Your task to perform on an android device: add a contact Image 0: 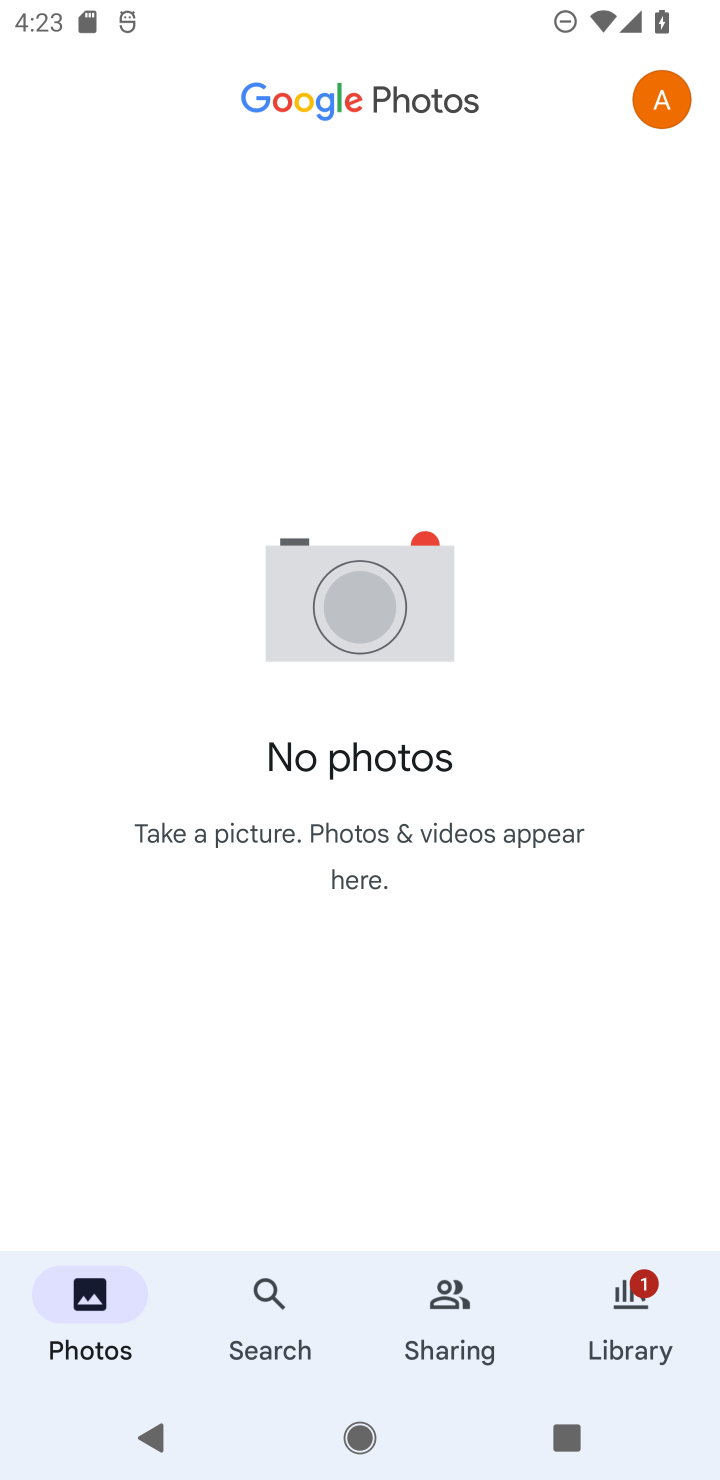
Step 0: press home button
Your task to perform on an android device: add a contact Image 1: 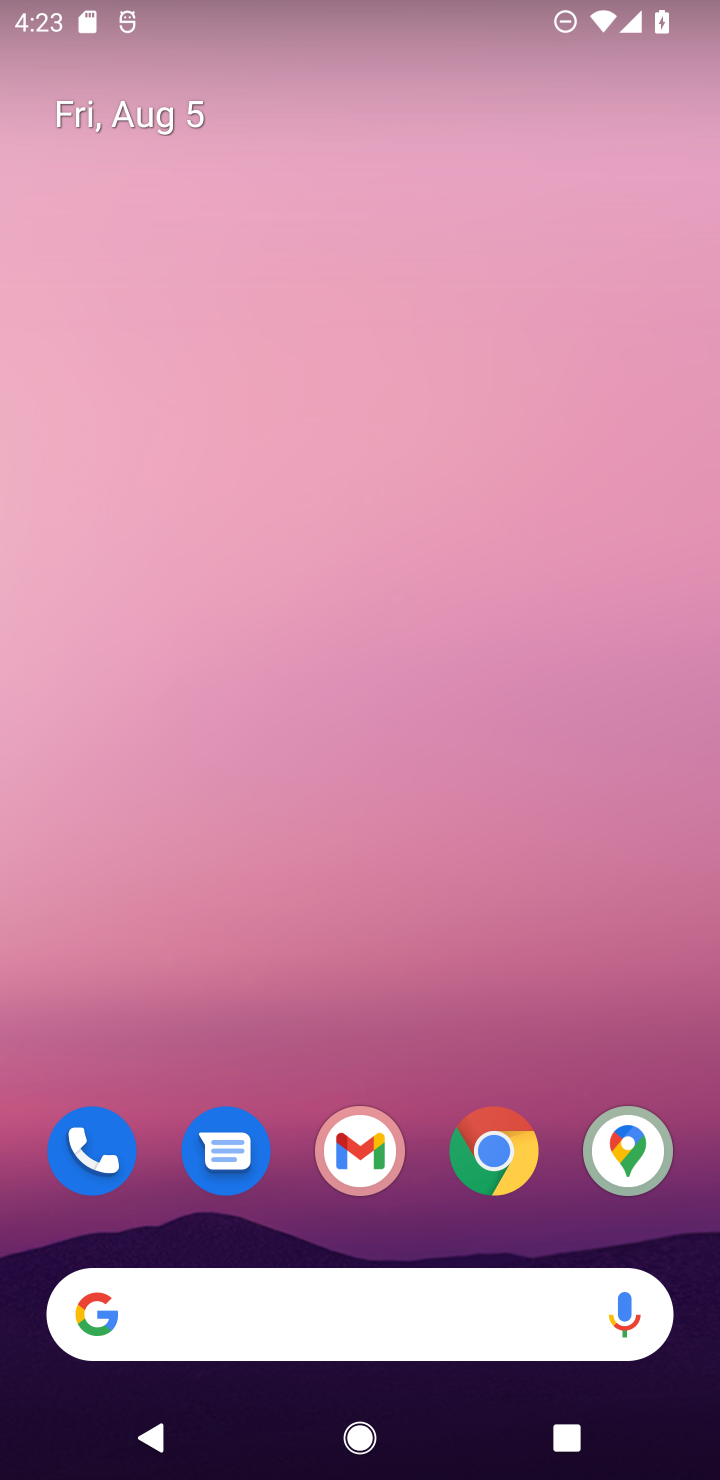
Step 1: drag from (488, 1009) to (459, 225)
Your task to perform on an android device: add a contact Image 2: 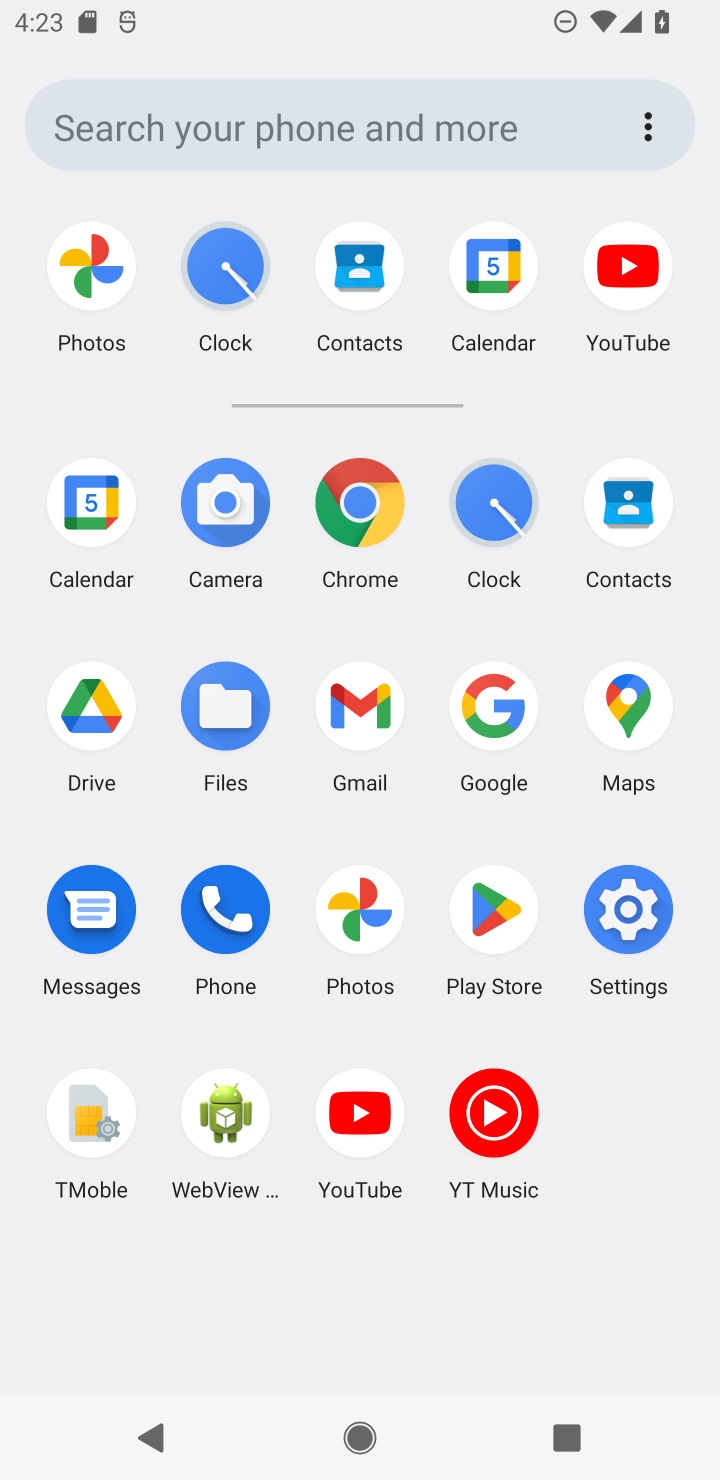
Step 2: click (635, 486)
Your task to perform on an android device: add a contact Image 3: 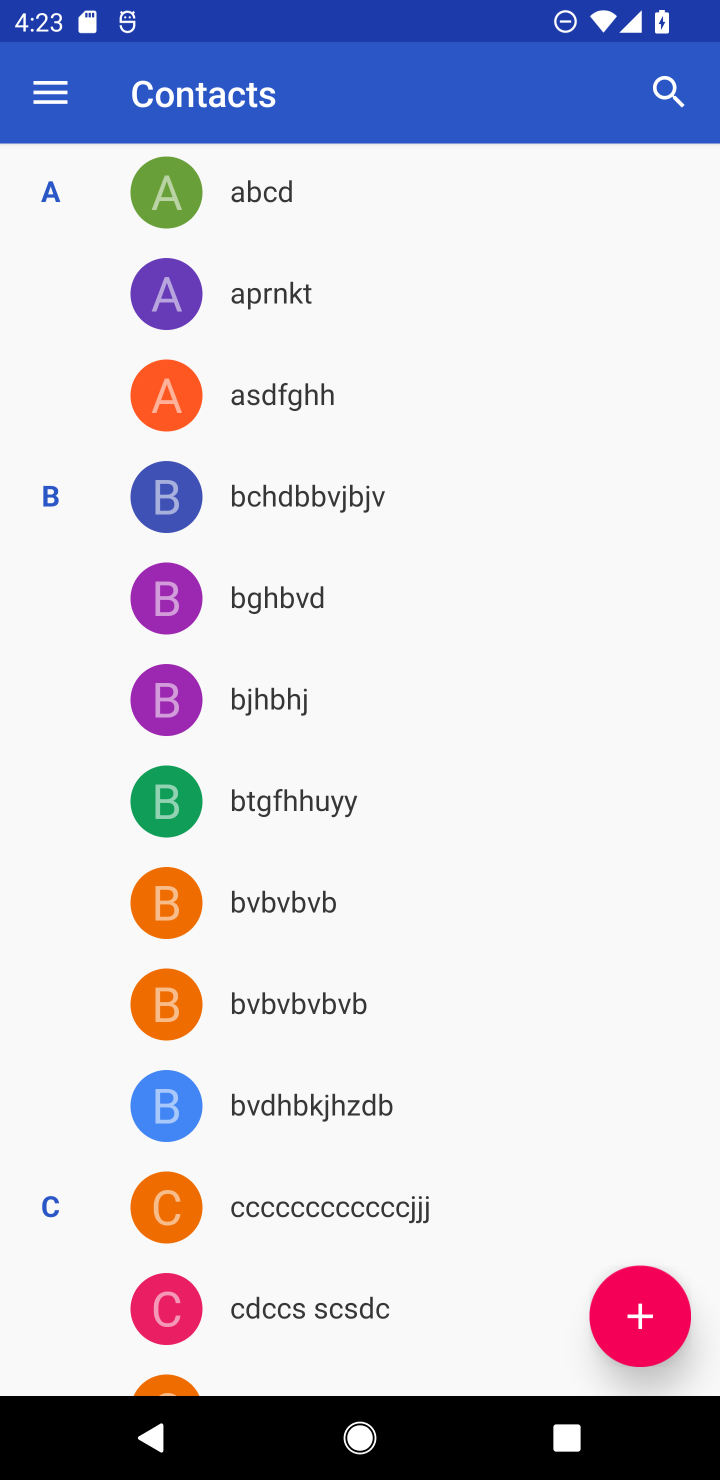
Step 3: click (632, 1310)
Your task to perform on an android device: add a contact Image 4: 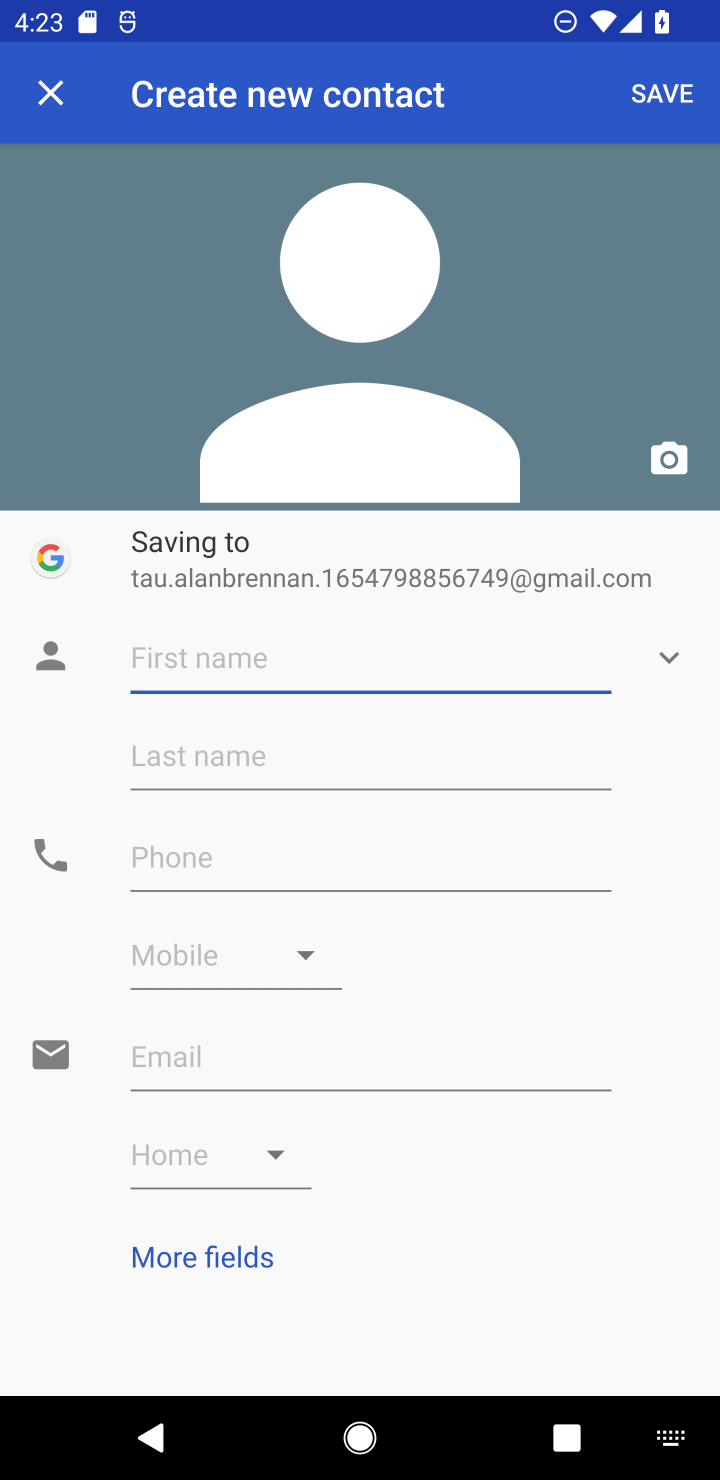
Step 4: type "mkjnkjmn"
Your task to perform on an android device: add a contact Image 5: 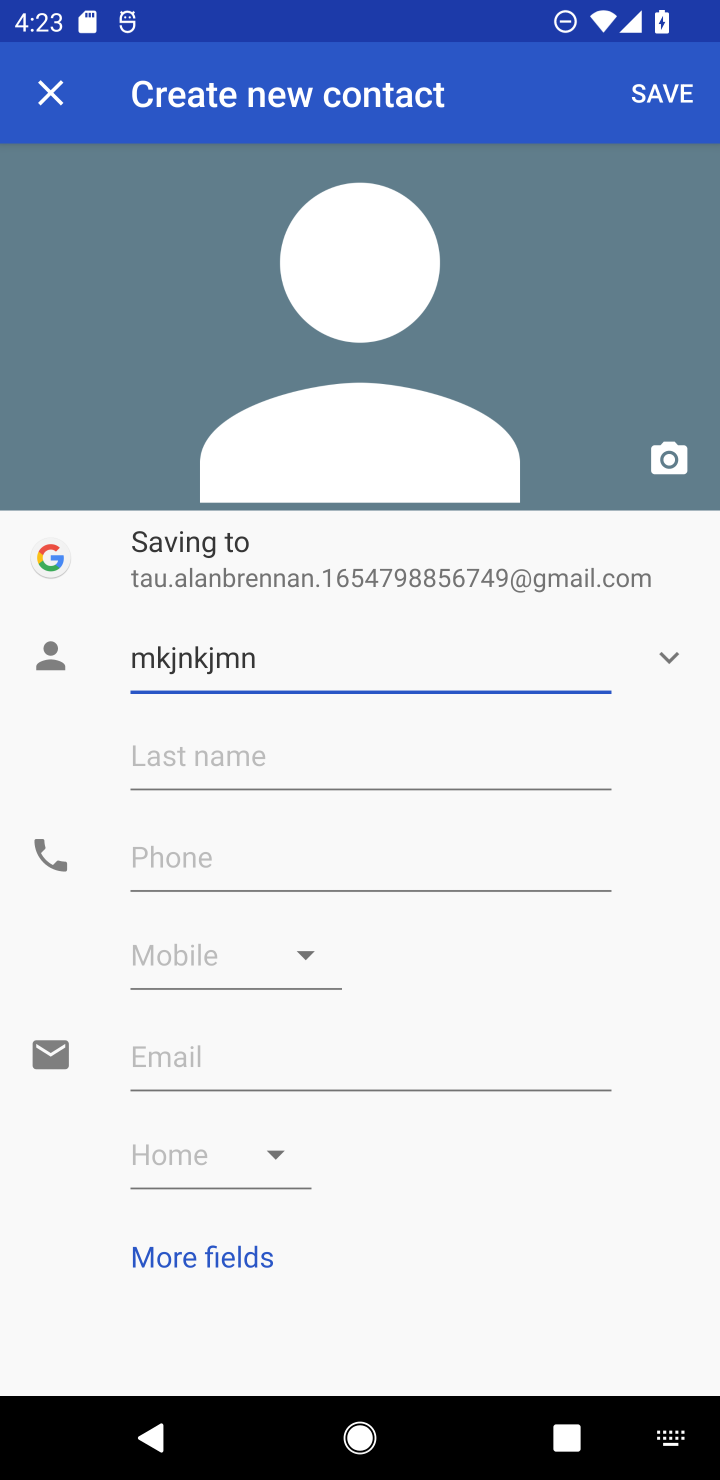
Step 5: click (178, 853)
Your task to perform on an android device: add a contact Image 6: 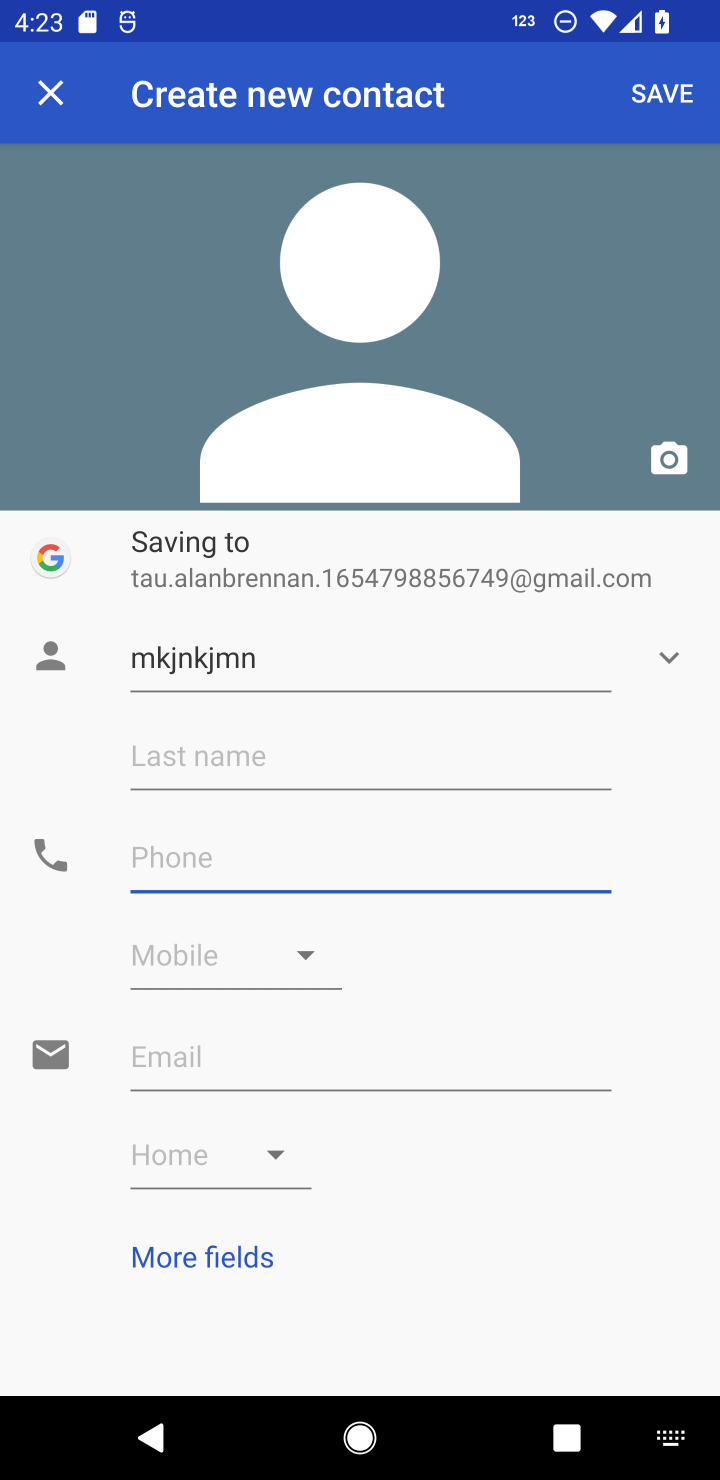
Step 6: type "8989898989"
Your task to perform on an android device: add a contact Image 7: 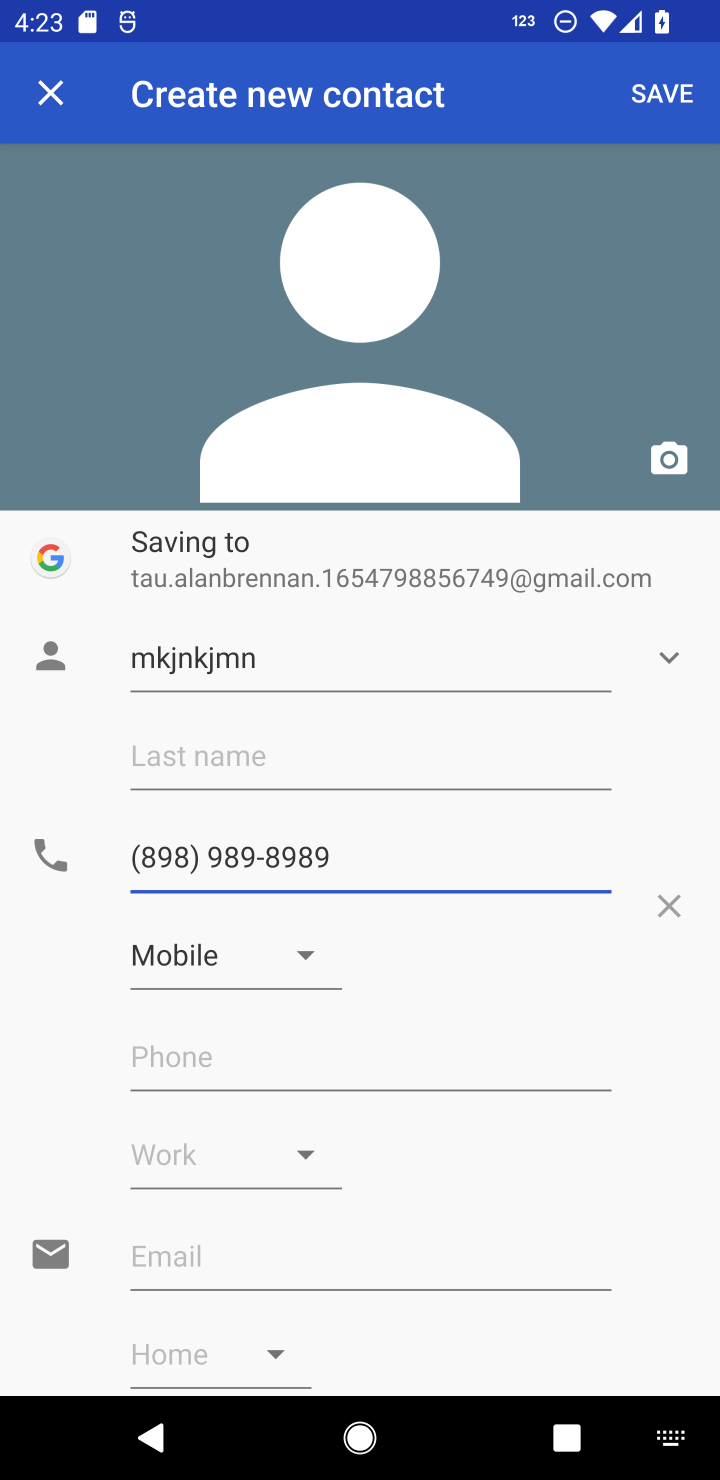
Step 7: click (664, 89)
Your task to perform on an android device: add a contact Image 8: 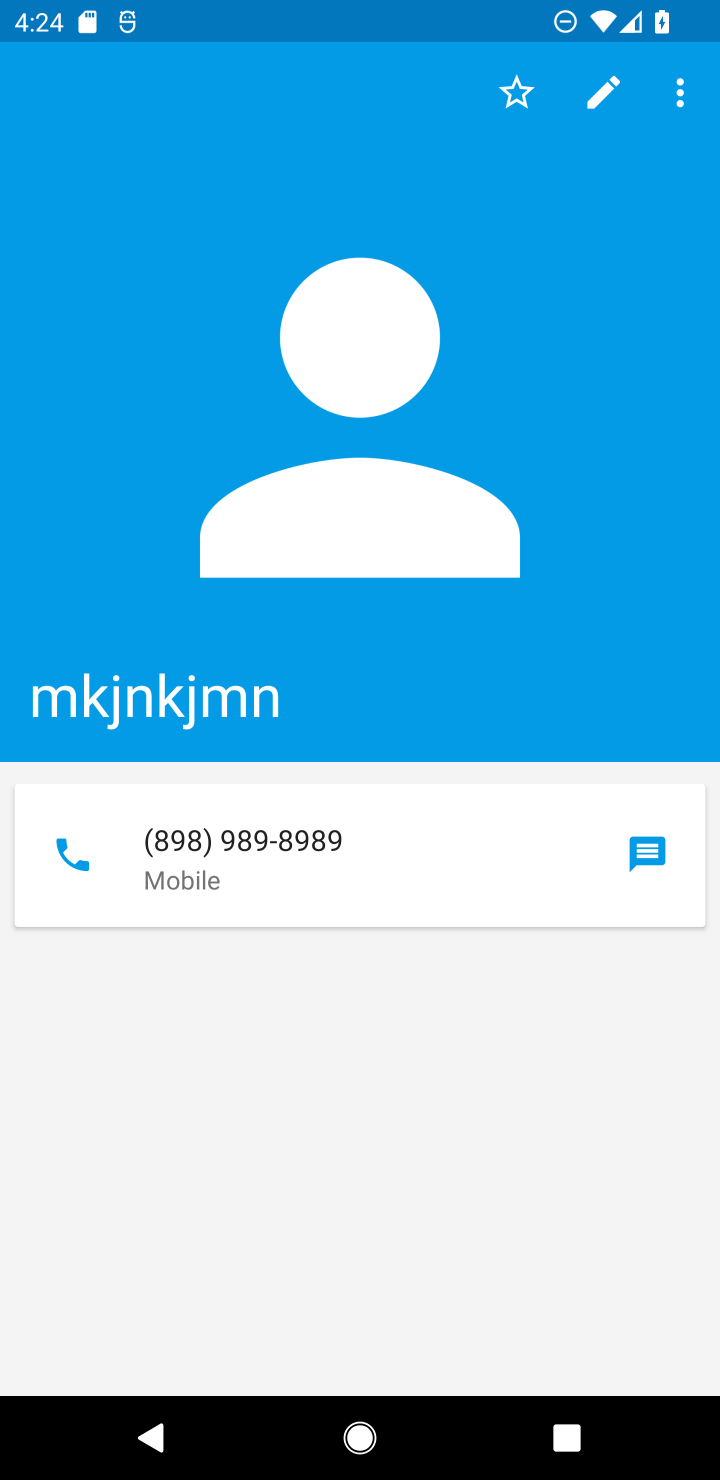
Step 8: task complete